Your task to perform on an android device: clear all cookies in the chrome app Image 0: 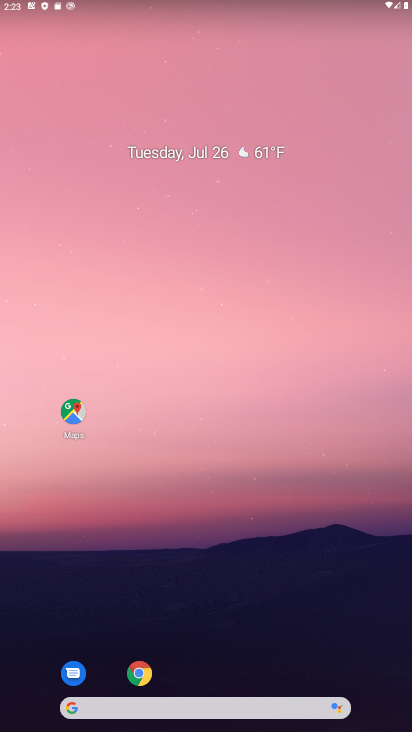
Step 0: drag from (204, 615) to (215, 358)
Your task to perform on an android device: clear all cookies in the chrome app Image 1: 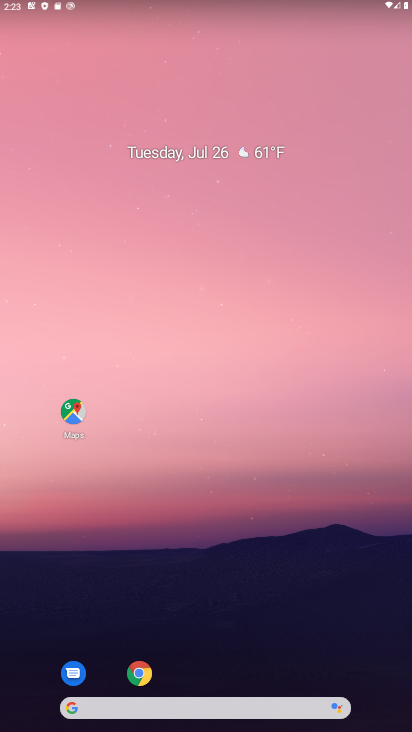
Step 1: drag from (183, 564) to (192, 244)
Your task to perform on an android device: clear all cookies in the chrome app Image 2: 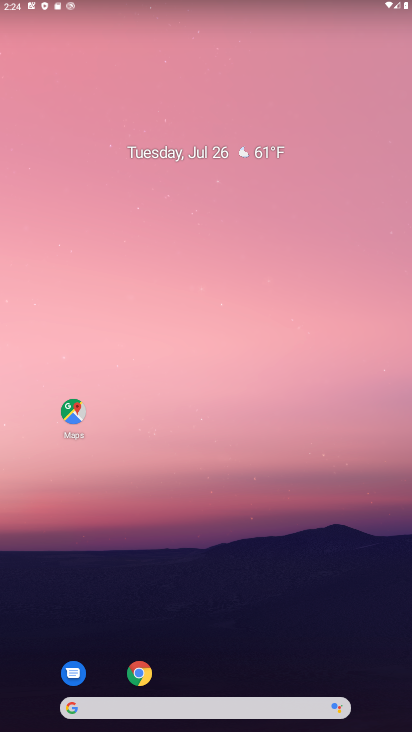
Step 2: drag from (179, 661) to (223, 253)
Your task to perform on an android device: clear all cookies in the chrome app Image 3: 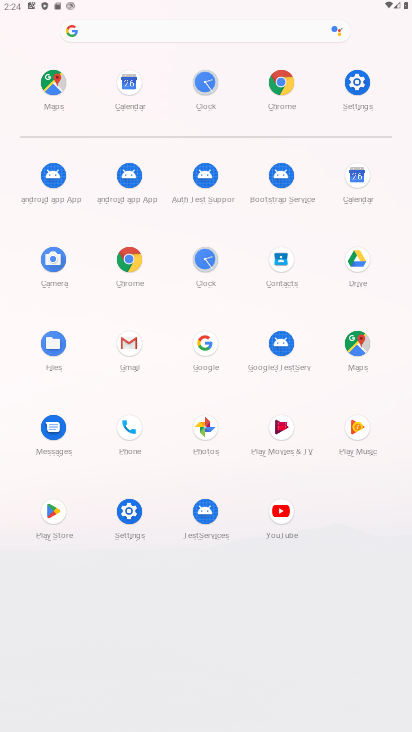
Step 3: click (123, 253)
Your task to perform on an android device: clear all cookies in the chrome app Image 4: 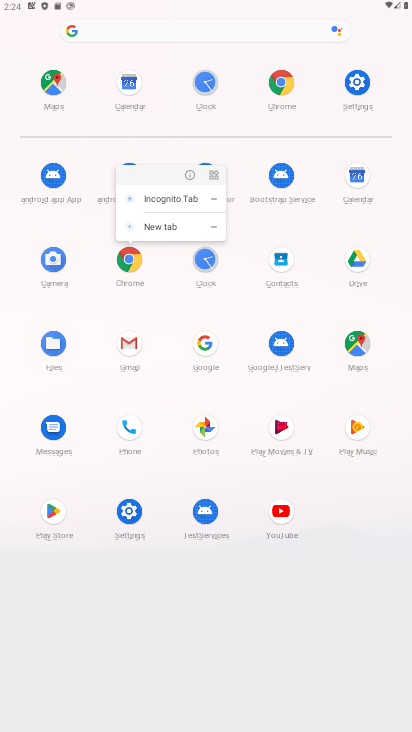
Step 4: click (189, 175)
Your task to perform on an android device: clear all cookies in the chrome app Image 5: 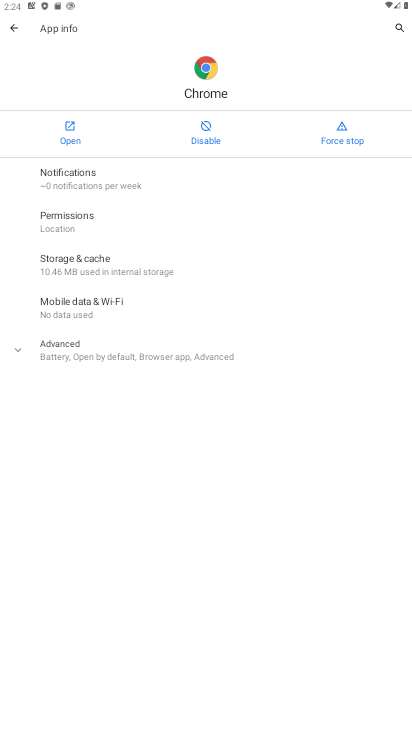
Step 5: click (65, 134)
Your task to perform on an android device: clear all cookies in the chrome app Image 6: 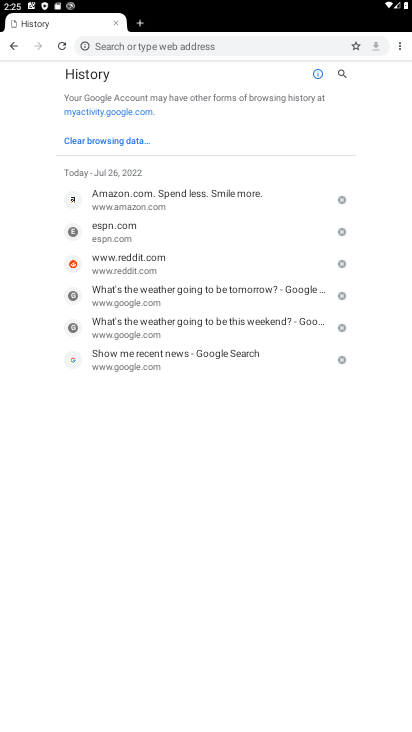
Step 6: drag from (201, 437) to (201, 160)
Your task to perform on an android device: clear all cookies in the chrome app Image 7: 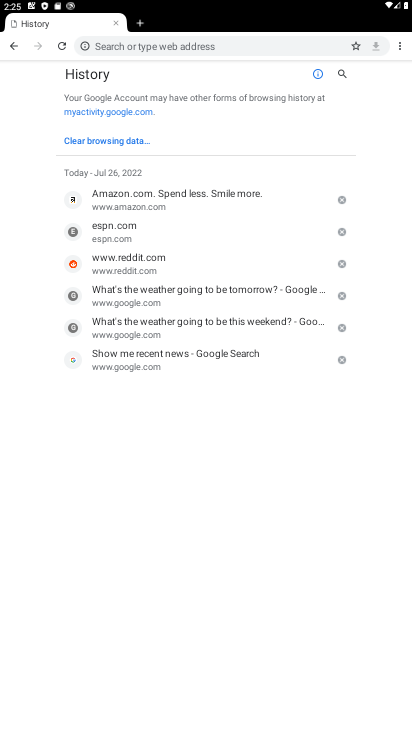
Step 7: click (108, 139)
Your task to perform on an android device: clear all cookies in the chrome app Image 8: 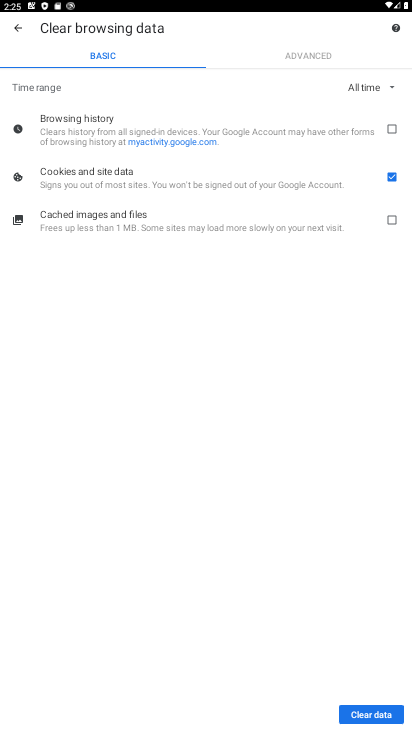
Step 8: click (352, 714)
Your task to perform on an android device: clear all cookies in the chrome app Image 9: 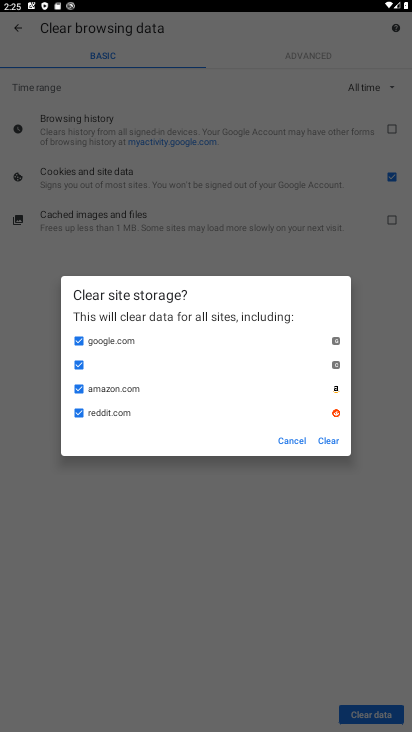
Step 9: click (330, 445)
Your task to perform on an android device: clear all cookies in the chrome app Image 10: 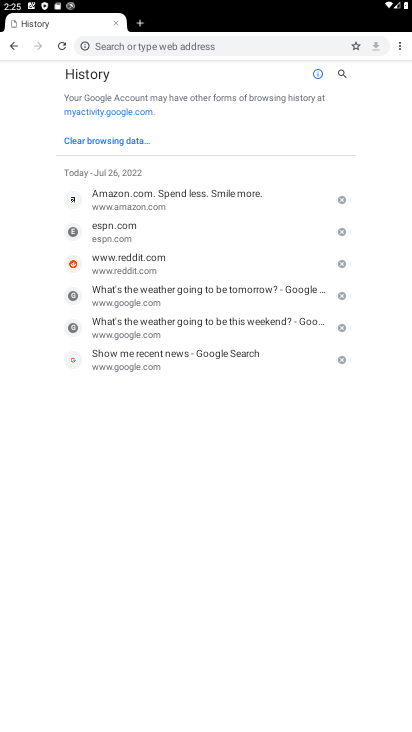
Step 10: drag from (260, 580) to (253, 469)
Your task to perform on an android device: clear all cookies in the chrome app Image 11: 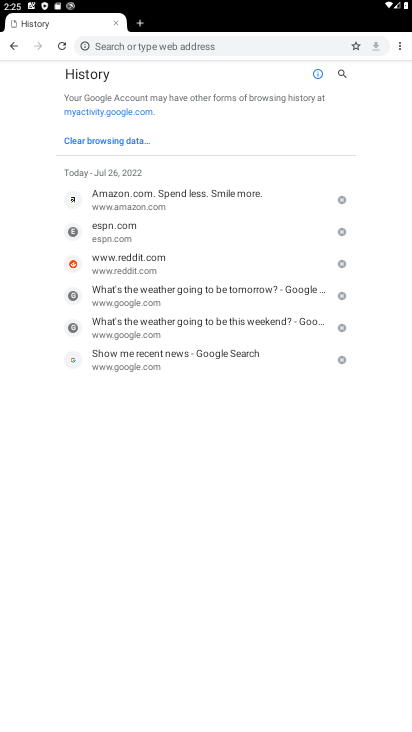
Step 11: click (96, 143)
Your task to perform on an android device: clear all cookies in the chrome app Image 12: 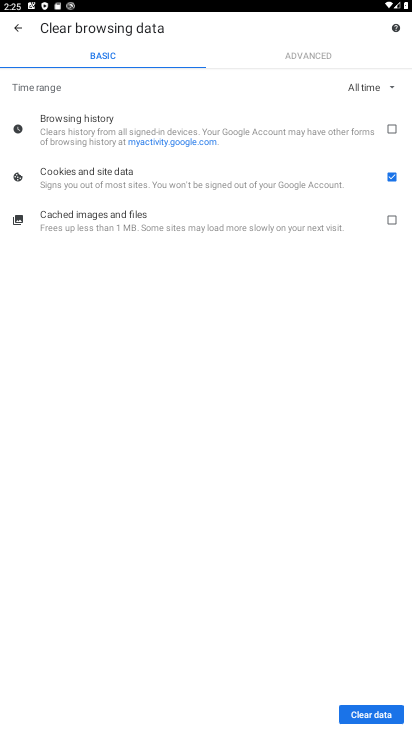
Step 12: drag from (209, 382) to (193, 231)
Your task to perform on an android device: clear all cookies in the chrome app Image 13: 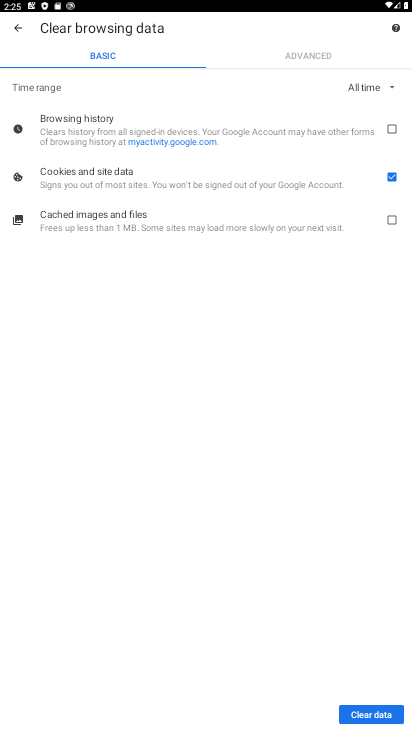
Step 13: click (349, 716)
Your task to perform on an android device: clear all cookies in the chrome app Image 14: 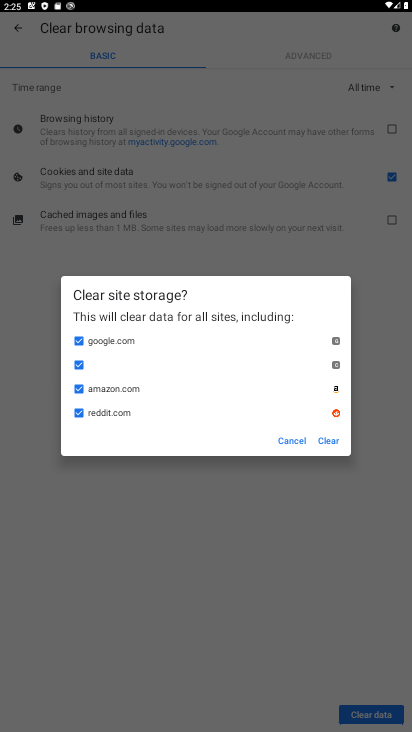
Step 14: task complete